Your task to perform on an android device: choose inbox layout in the gmail app Image 0: 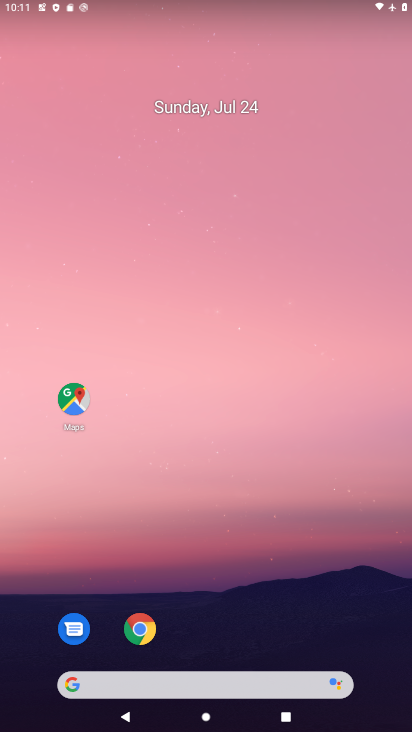
Step 0: task complete